Your task to perform on an android device: add a label to a message in the gmail app Image 0: 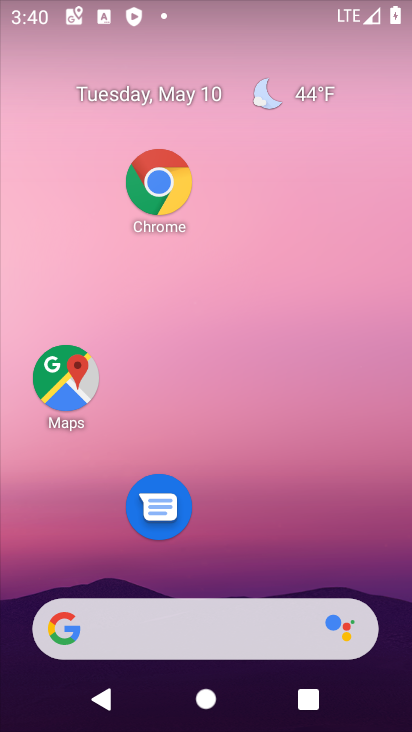
Step 0: drag from (330, 504) to (296, 8)
Your task to perform on an android device: add a label to a message in the gmail app Image 1: 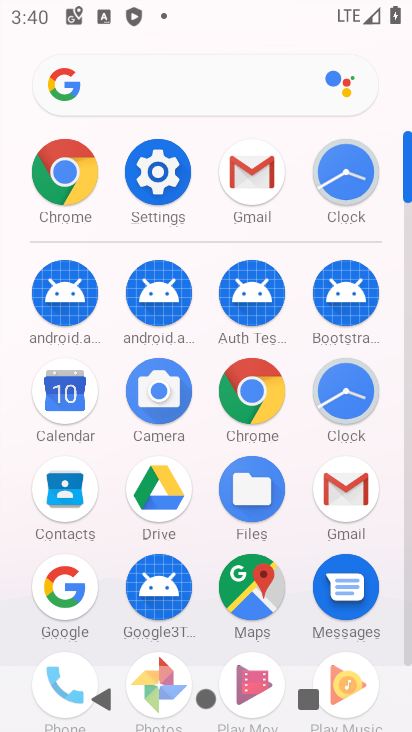
Step 1: click (336, 496)
Your task to perform on an android device: add a label to a message in the gmail app Image 2: 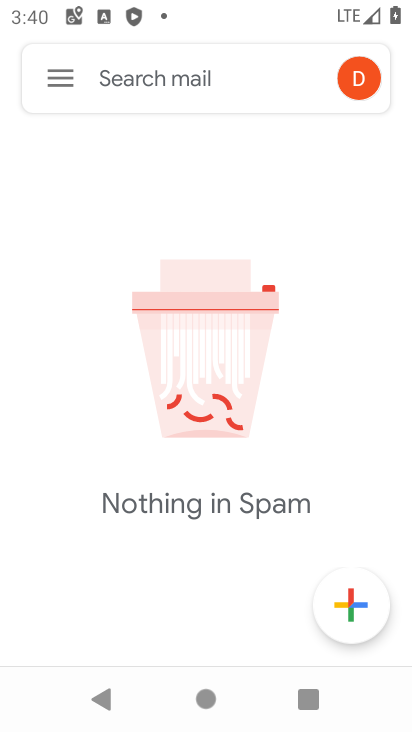
Step 2: click (57, 64)
Your task to perform on an android device: add a label to a message in the gmail app Image 3: 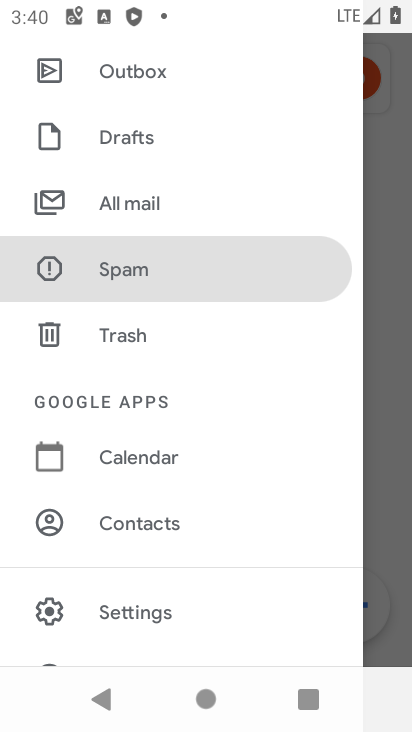
Step 3: click (119, 213)
Your task to perform on an android device: add a label to a message in the gmail app Image 4: 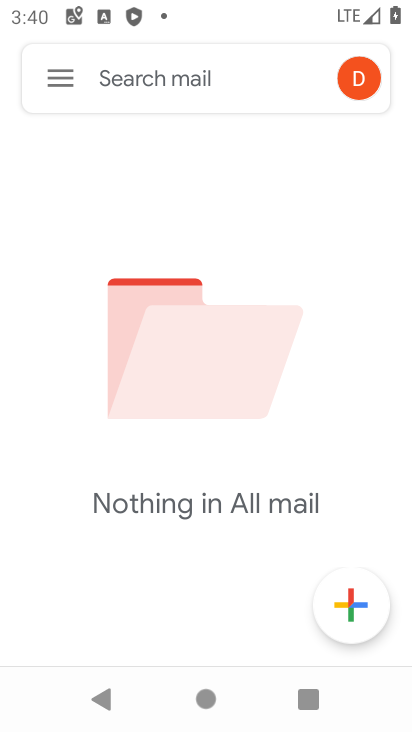
Step 4: task complete